Your task to perform on an android device: Open Youtube and go to "Your channel" Image 0: 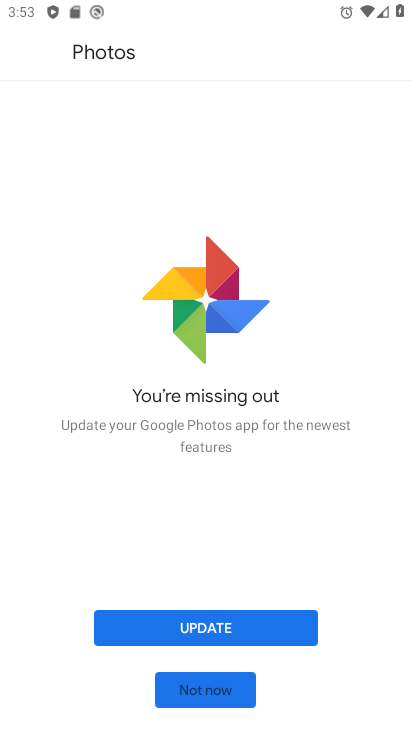
Step 0: press home button
Your task to perform on an android device: Open Youtube and go to "Your channel" Image 1: 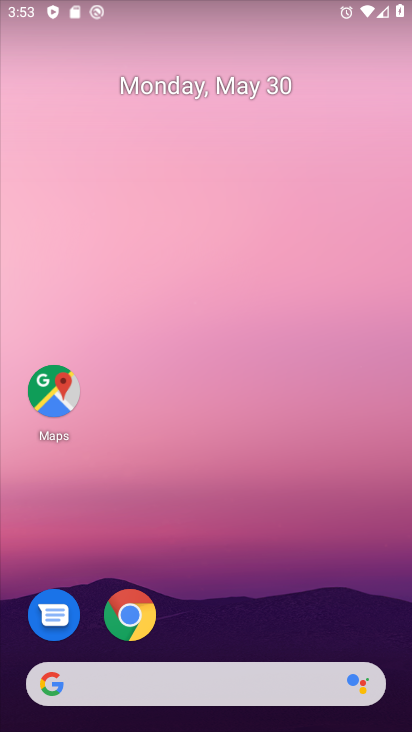
Step 1: drag from (260, 616) to (268, 57)
Your task to perform on an android device: Open Youtube and go to "Your channel" Image 2: 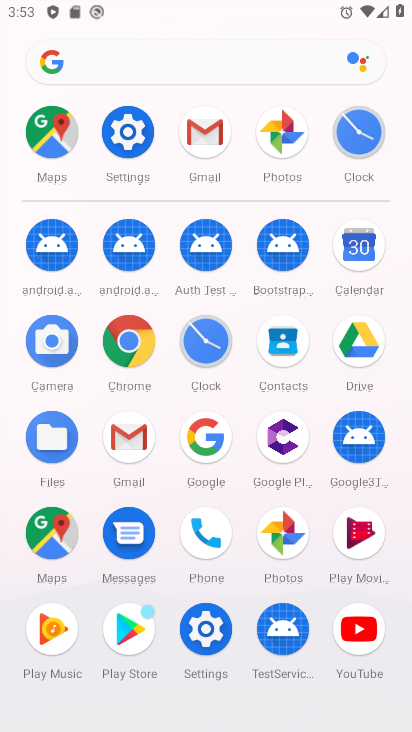
Step 2: click (357, 630)
Your task to perform on an android device: Open Youtube and go to "Your channel" Image 3: 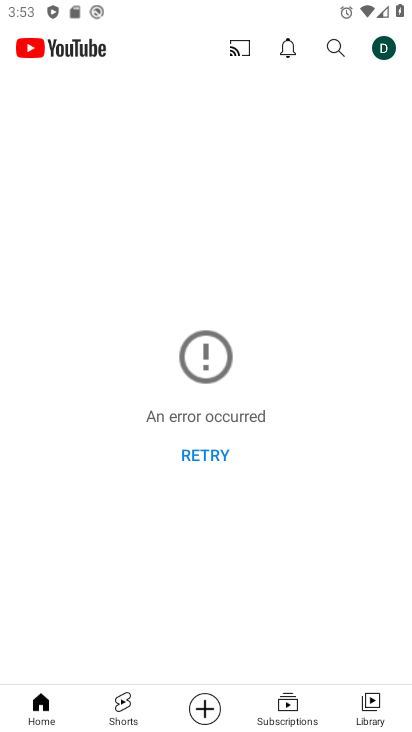
Step 3: click (387, 42)
Your task to perform on an android device: Open Youtube and go to "Your channel" Image 4: 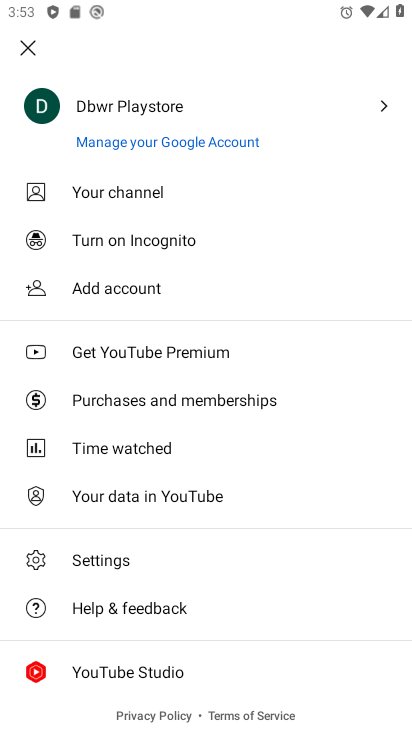
Step 4: click (234, 189)
Your task to perform on an android device: Open Youtube and go to "Your channel" Image 5: 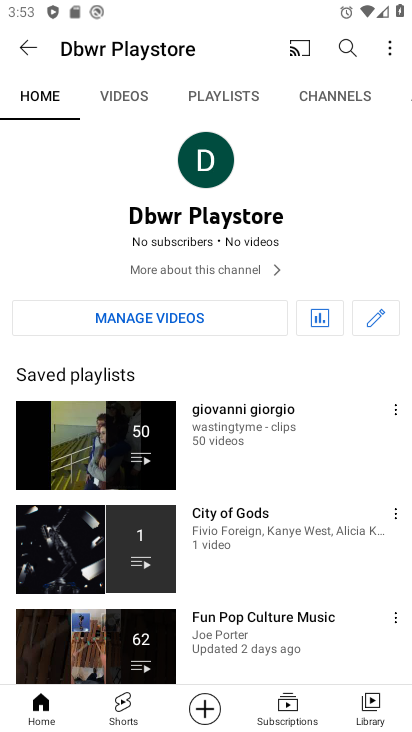
Step 5: task complete